Your task to perform on an android device: turn on sleep mode Image 0: 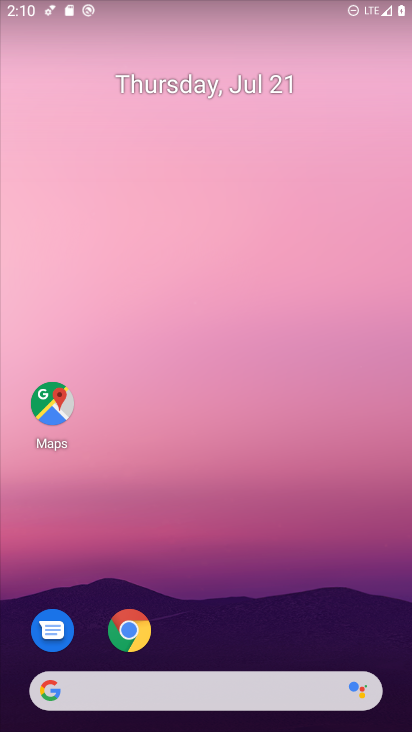
Step 0: click (323, 554)
Your task to perform on an android device: turn on sleep mode Image 1: 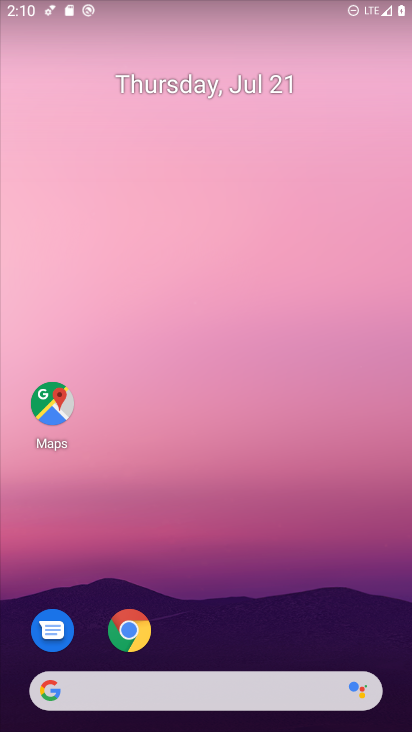
Step 1: drag from (271, 4) to (272, 431)
Your task to perform on an android device: turn on sleep mode Image 2: 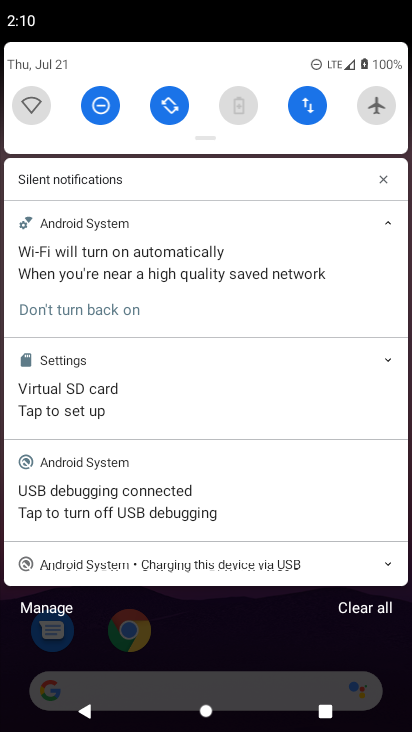
Step 2: drag from (202, 133) to (224, 553)
Your task to perform on an android device: turn on sleep mode Image 3: 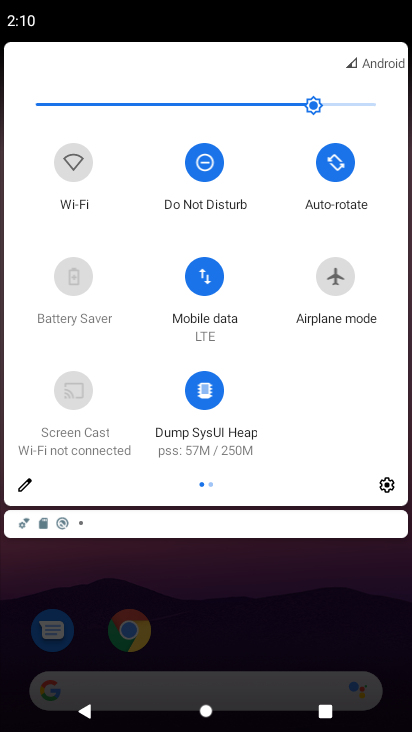
Step 3: click (25, 489)
Your task to perform on an android device: turn on sleep mode Image 4: 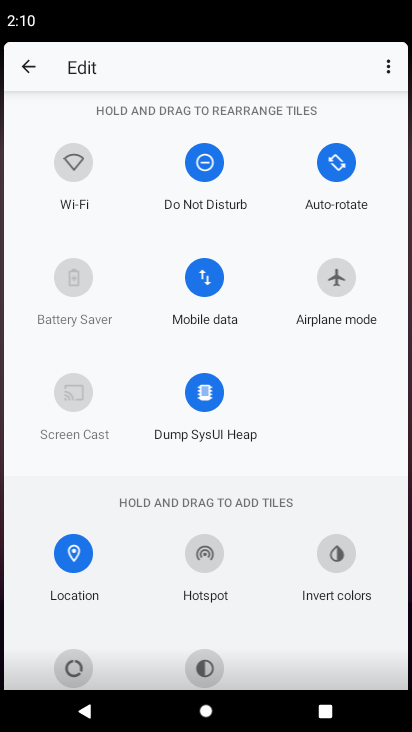
Step 4: click (283, 506)
Your task to perform on an android device: turn on sleep mode Image 5: 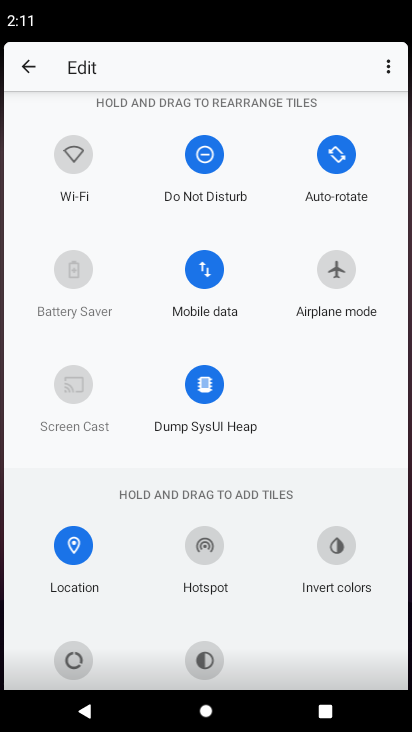
Step 5: task complete